Your task to perform on an android device: turn on bluetooth scan Image 0: 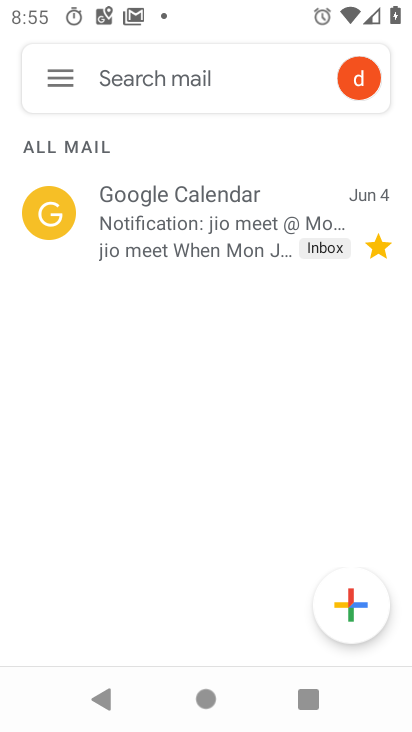
Step 0: drag from (248, 669) to (211, 163)
Your task to perform on an android device: turn on bluetooth scan Image 1: 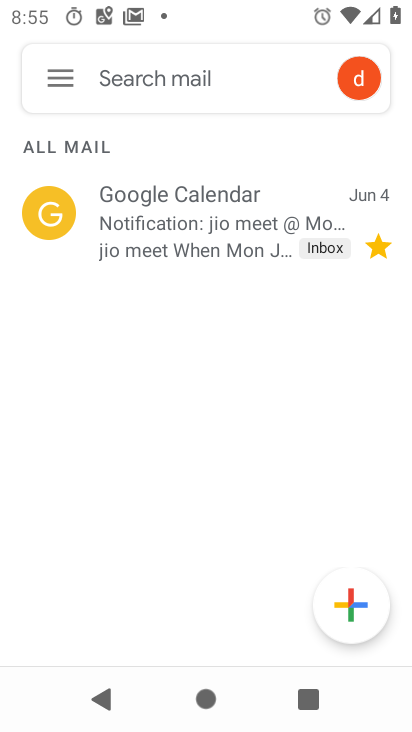
Step 1: press home button
Your task to perform on an android device: turn on bluetooth scan Image 2: 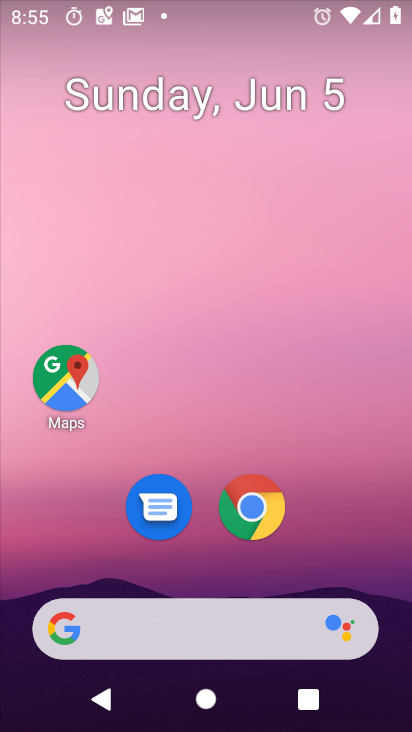
Step 2: drag from (259, 648) to (182, 1)
Your task to perform on an android device: turn on bluetooth scan Image 3: 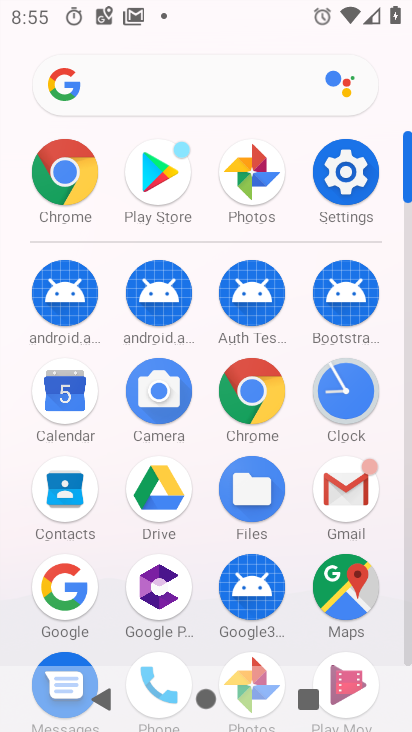
Step 3: click (345, 186)
Your task to perform on an android device: turn on bluetooth scan Image 4: 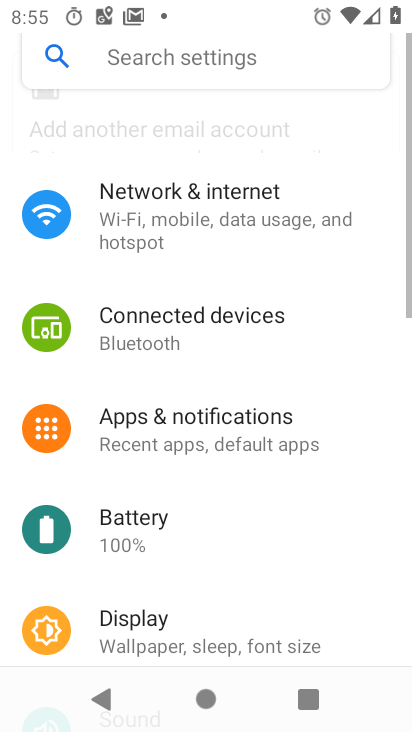
Step 4: click (152, 53)
Your task to perform on an android device: turn on bluetooth scan Image 5: 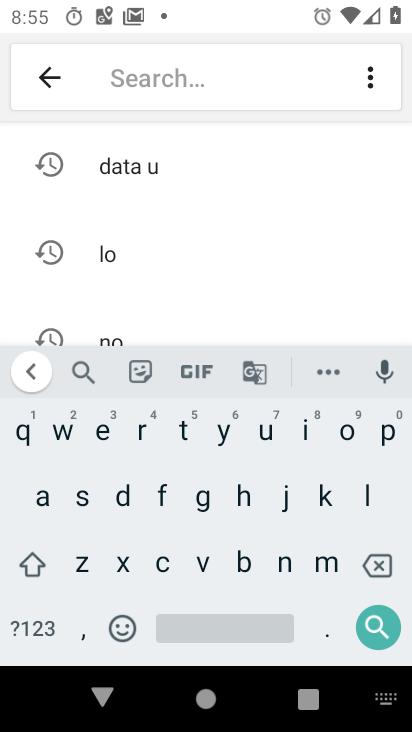
Step 5: click (143, 258)
Your task to perform on an android device: turn on bluetooth scan Image 6: 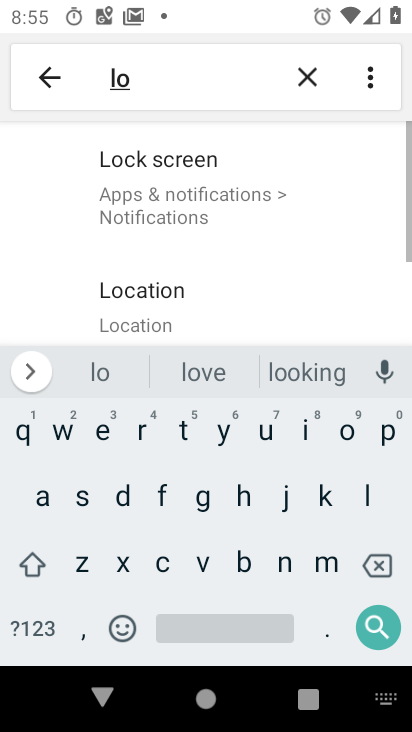
Step 6: click (178, 322)
Your task to perform on an android device: turn on bluetooth scan Image 7: 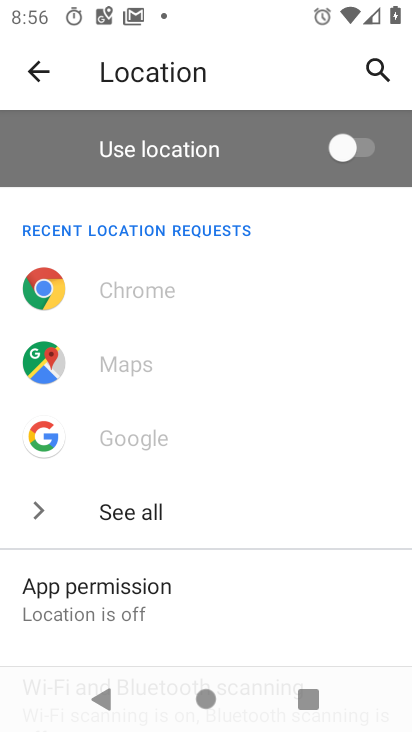
Step 7: drag from (221, 555) to (204, 342)
Your task to perform on an android device: turn on bluetooth scan Image 8: 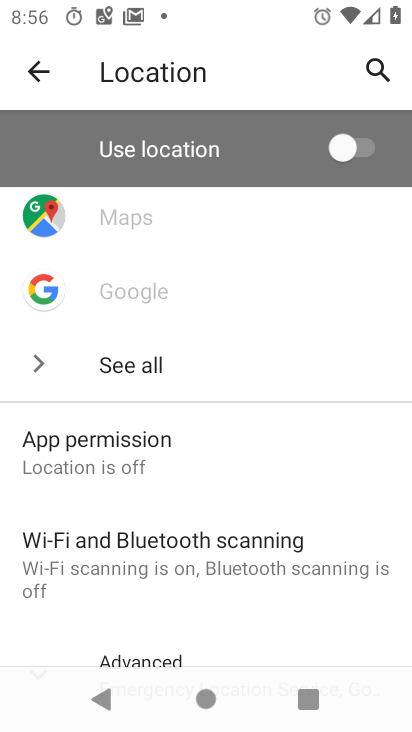
Step 8: click (241, 553)
Your task to perform on an android device: turn on bluetooth scan Image 9: 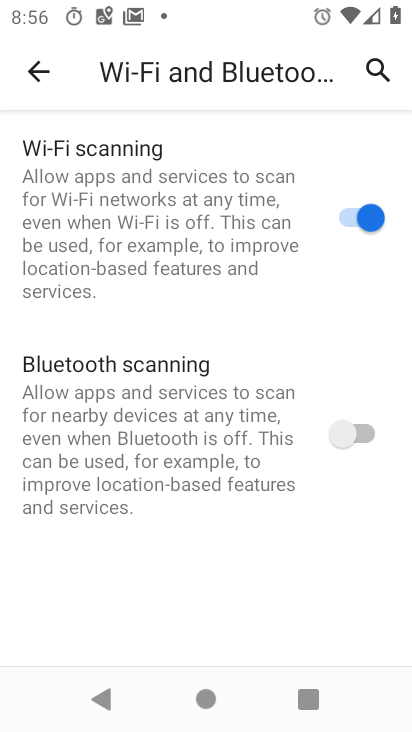
Step 9: click (337, 413)
Your task to perform on an android device: turn on bluetooth scan Image 10: 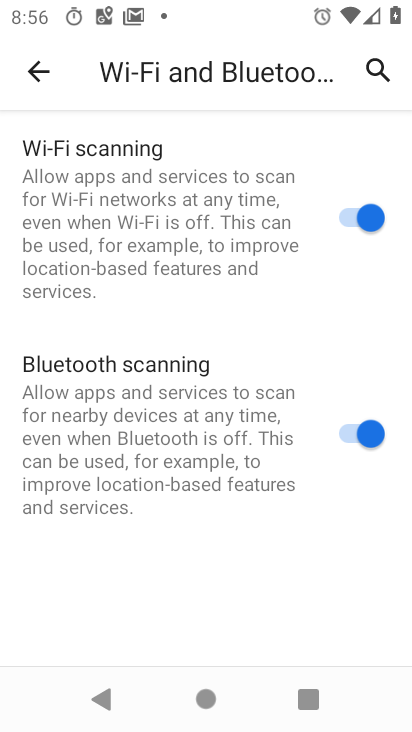
Step 10: task complete